Your task to perform on an android device: find snoozed emails in the gmail app Image 0: 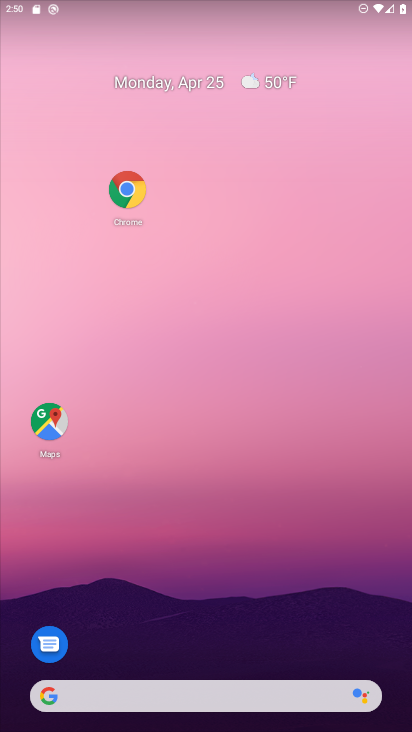
Step 0: drag from (164, 639) to (190, 129)
Your task to perform on an android device: find snoozed emails in the gmail app Image 1: 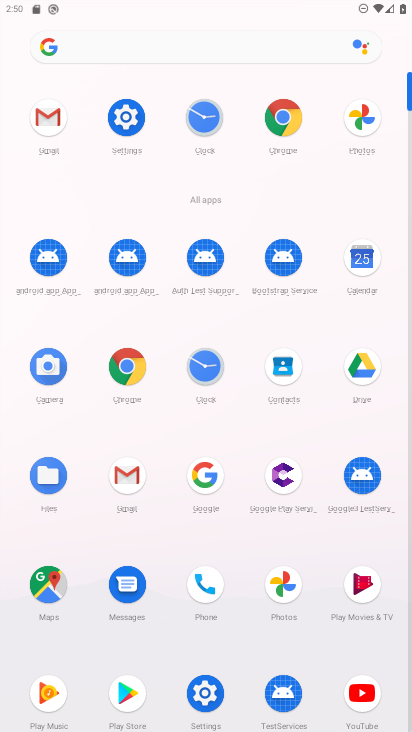
Step 1: click (137, 476)
Your task to perform on an android device: find snoozed emails in the gmail app Image 2: 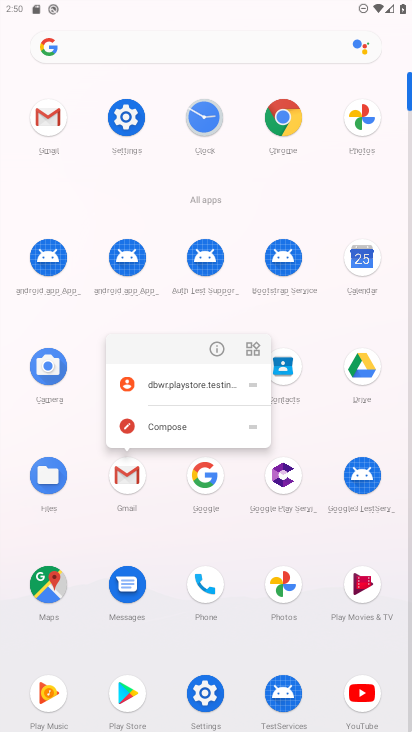
Step 2: click (218, 348)
Your task to perform on an android device: find snoozed emails in the gmail app Image 3: 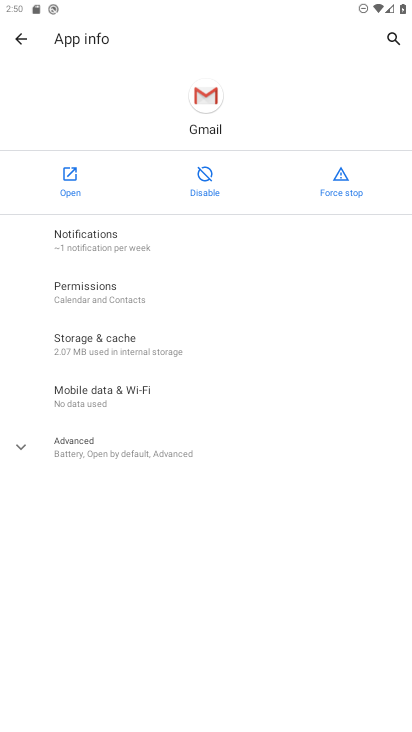
Step 3: click (66, 192)
Your task to perform on an android device: find snoozed emails in the gmail app Image 4: 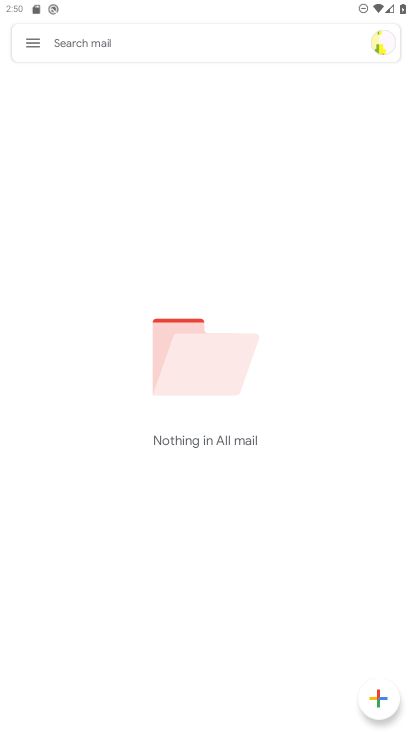
Step 4: click (29, 43)
Your task to perform on an android device: find snoozed emails in the gmail app Image 5: 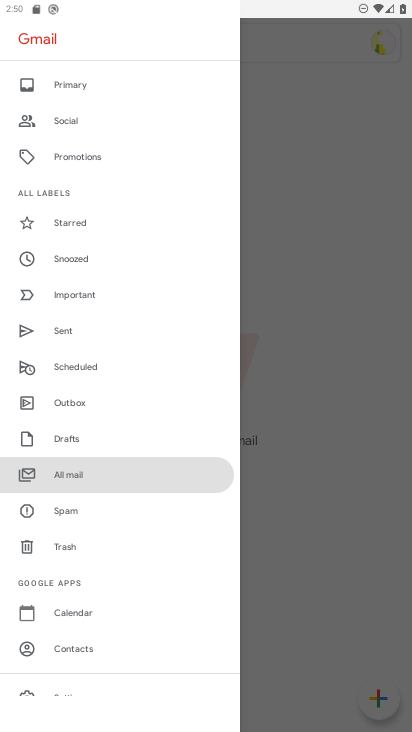
Step 5: click (87, 262)
Your task to perform on an android device: find snoozed emails in the gmail app Image 6: 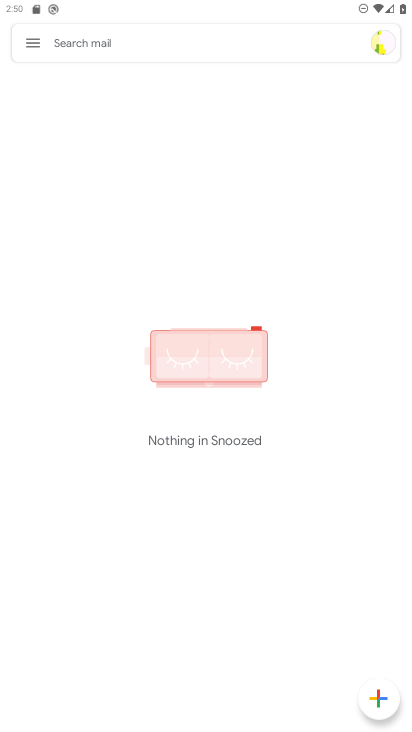
Step 6: task complete